Your task to perform on an android device: Open sound settings Image 0: 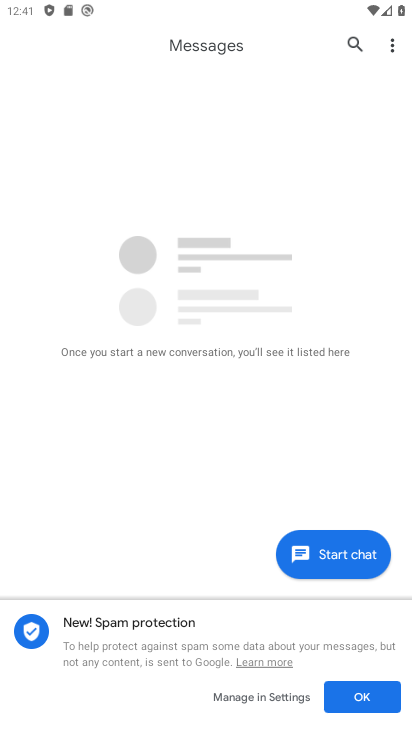
Step 0: press home button
Your task to perform on an android device: Open sound settings Image 1: 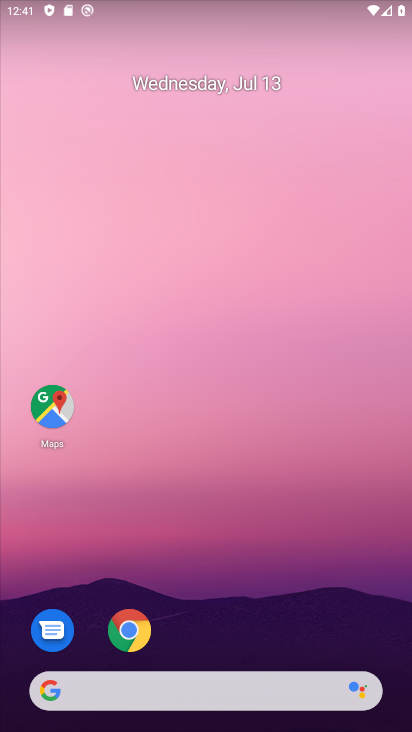
Step 1: drag from (27, 700) to (129, 708)
Your task to perform on an android device: Open sound settings Image 2: 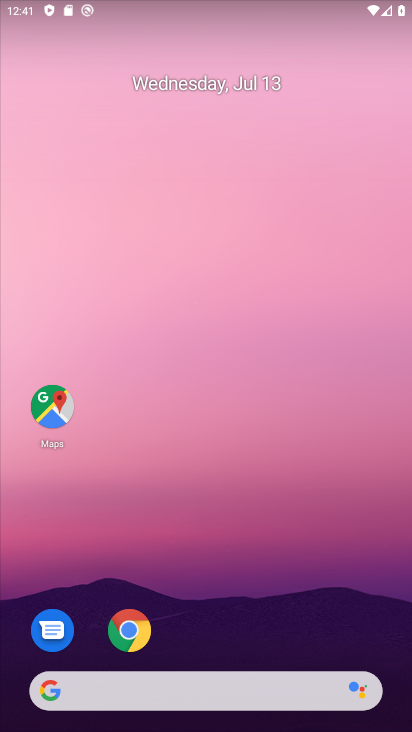
Step 2: click (214, 664)
Your task to perform on an android device: Open sound settings Image 3: 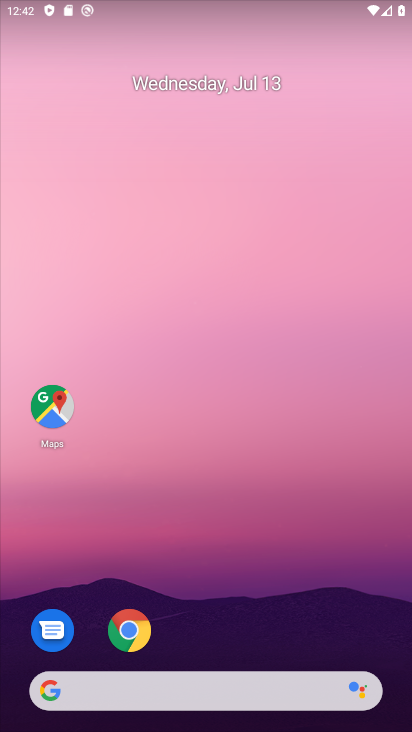
Step 3: drag from (24, 704) to (295, 75)
Your task to perform on an android device: Open sound settings Image 4: 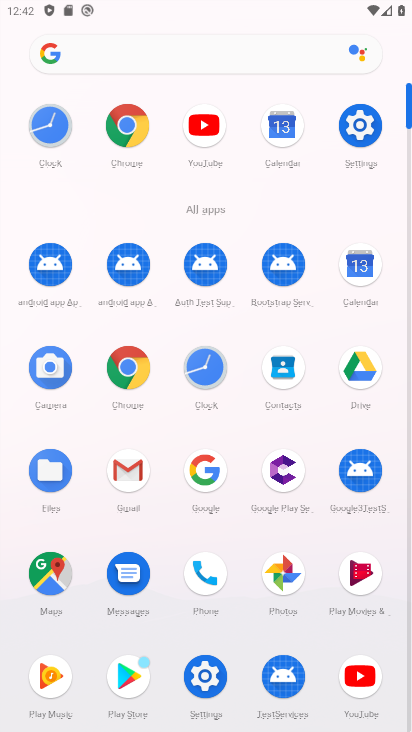
Step 4: click (189, 698)
Your task to perform on an android device: Open sound settings Image 5: 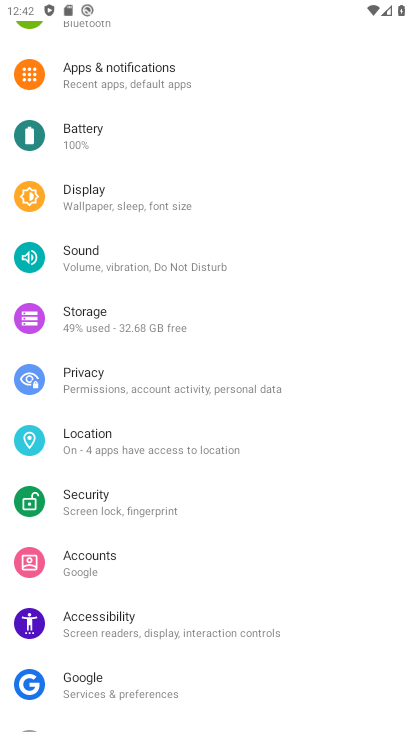
Step 5: click (90, 260)
Your task to perform on an android device: Open sound settings Image 6: 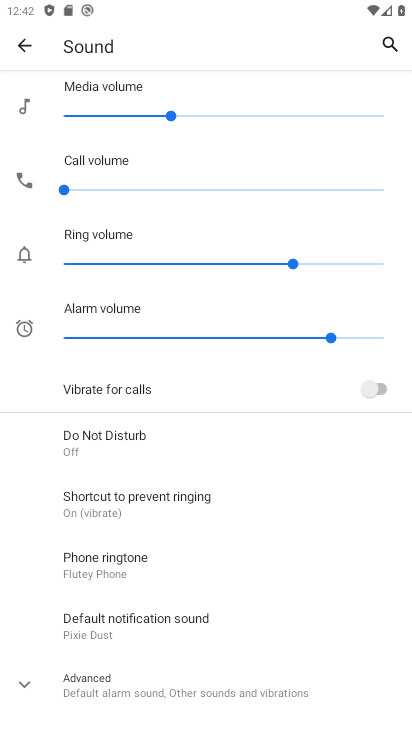
Step 6: task complete